Your task to perform on an android device: Open battery settings Image 0: 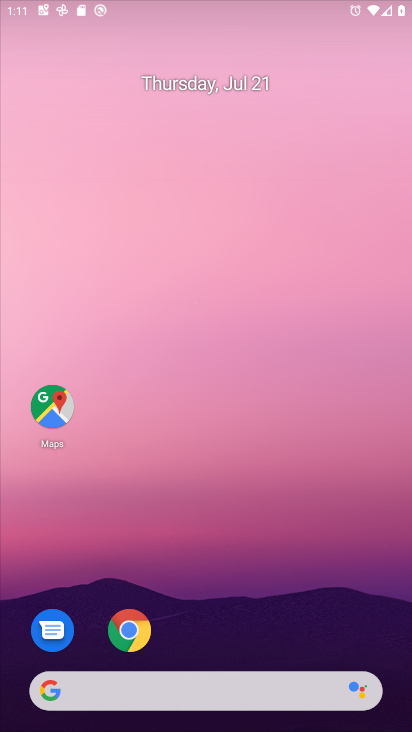
Step 0: drag from (207, 649) to (300, 201)
Your task to perform on an android device: Open battery settings Image 1: 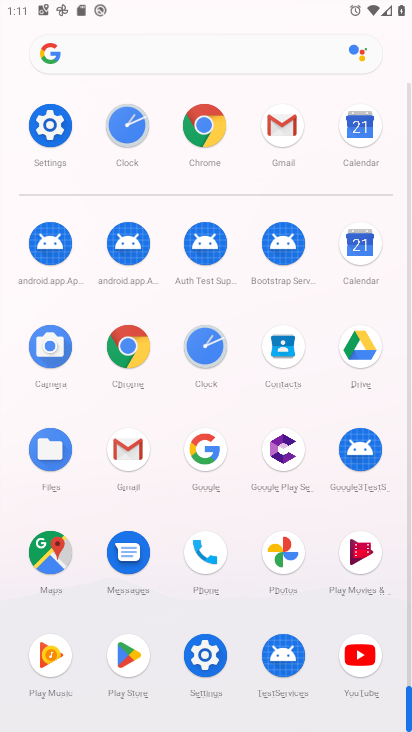
Step 1: click (195, 660)
Your task to perform on an android device: Open battery settings Image 2: 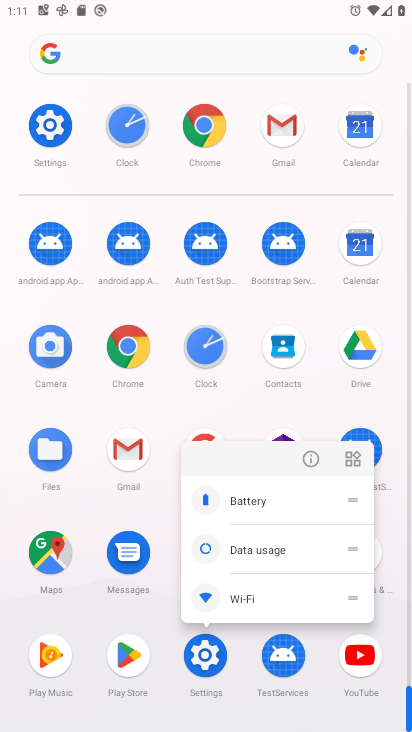
Step 2: click (314, 455)
Your task to perform on an android device: Open battery settings Image 3: 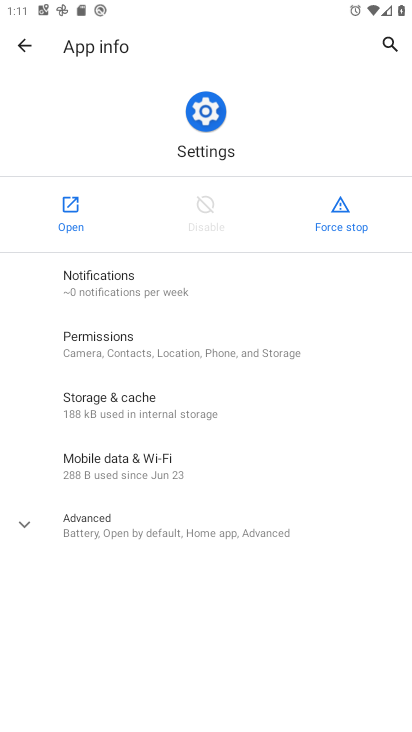
Step 3: click (60, 214)
Your task to perform on an android device: Open battery settings Image 4: 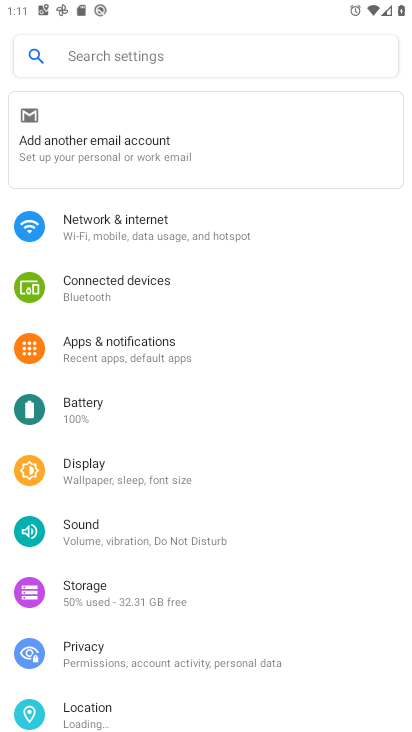
Step 4: click (105, 417)
Your task to perform on an android device: Open battery settings Image 5: 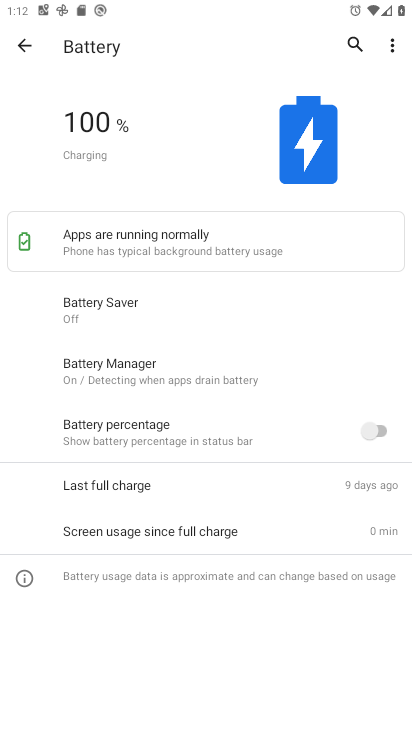
Step 5: task complete